Your task to perform on an android device: Open sound settings Image 0: 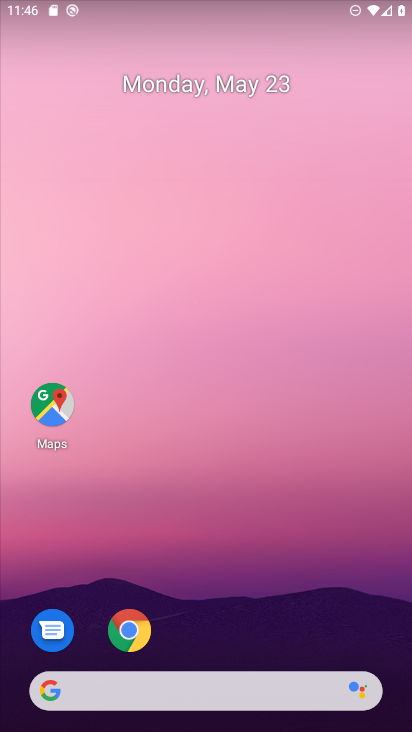
Step 0: click (365, 422)
Your task to perform on an android device: Open sound settings Image 1: 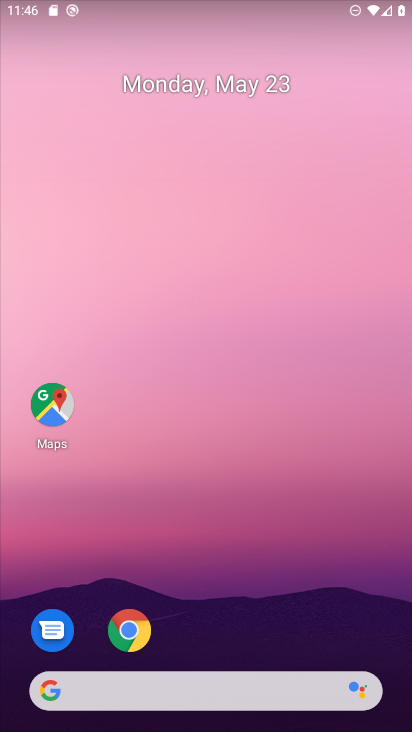
Step 1: drag from (216, 641) to (330, 281)
Your task to perform on an android device: Open sound settings Image 2: 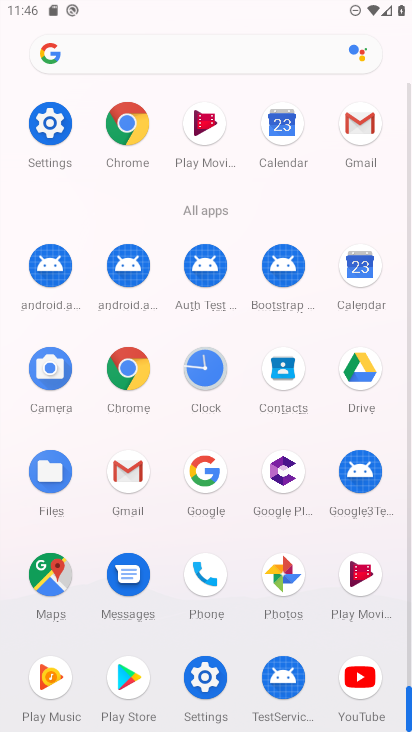
Step 2: click (203, 672)
Your task to perform on an android device: Open sound settings Image 3: 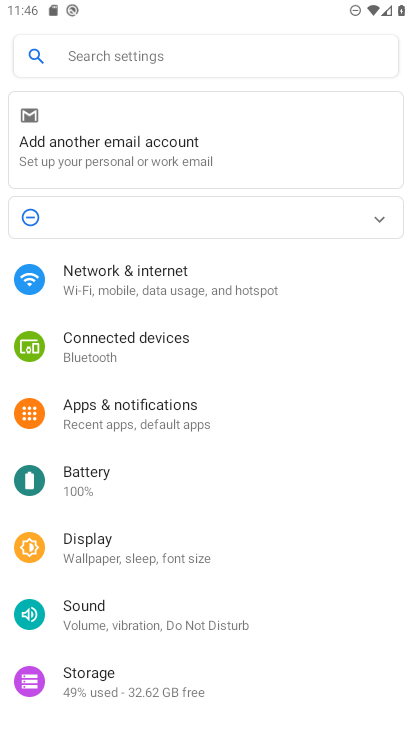
Step 3: click (142, 615)
Your task to perform on an android device: Open sound settings Image 4: 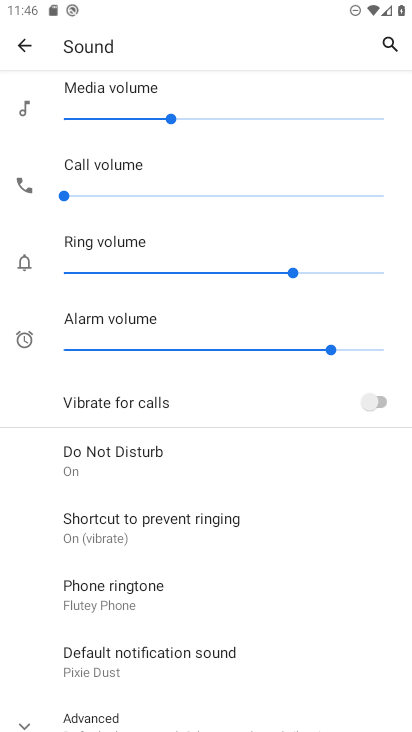
Step 4: task complete